Your task to perform on an android device: Is it going to rain tomorrow? Image 0: 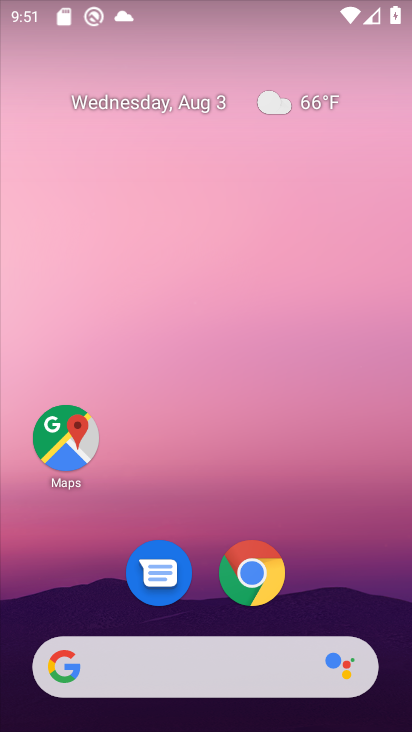
Step 0: drag from (216, 675) to (198, 164)
Your task to perform on an android device: Is it going to rain tomorrow? Image 1: 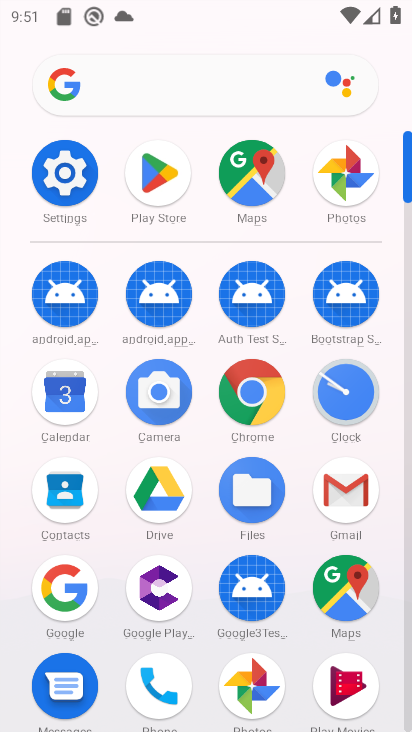
Step 1: press back button
Your task to perform on an android device: Is it going to rain tomorrow? Image 2: 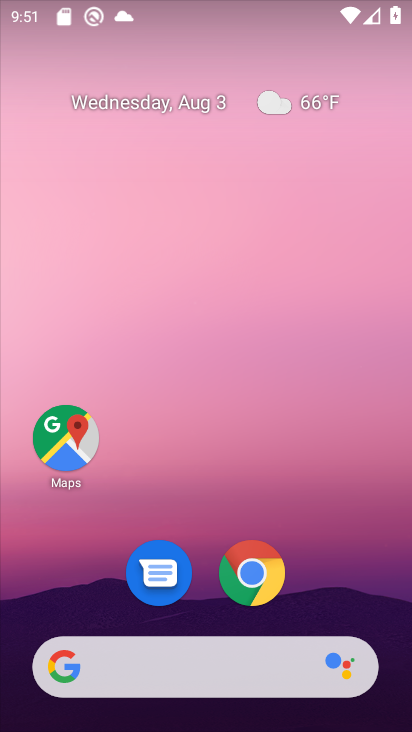
Step 2: click (302, 108)
Your task to perform on an android device: Is it going to rain tomorrow? Image 3: 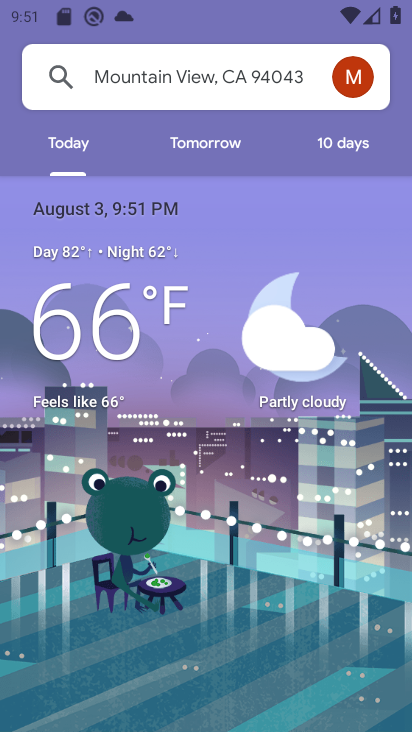
Step 3: click (198, 156)
Your task to perform on an android device: Is it going to rain tomorrow? Image 4: 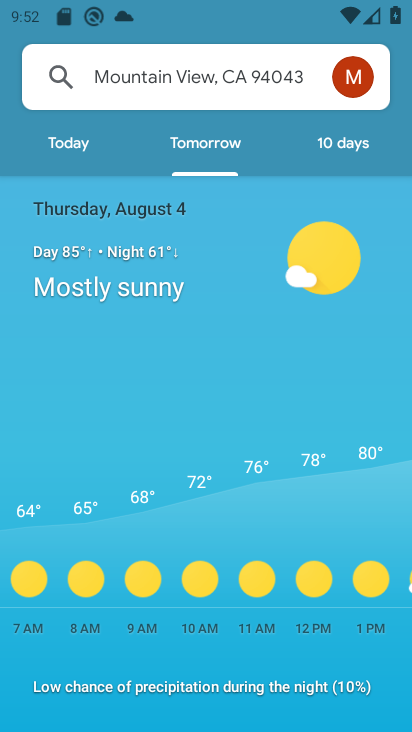
Step 4: task complete